Your task to perform on an android device: Go to accessibility settings Image 0: 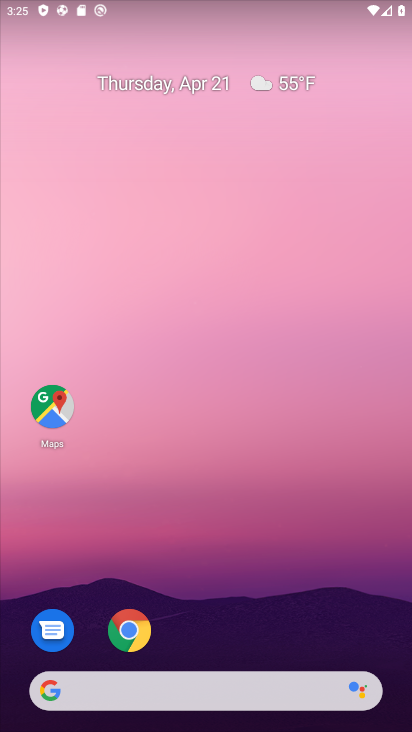
Step 0: drag from (372, 644) to (336, 1)
Your task to perform on an android device: Go to accessibility settings Image 1: 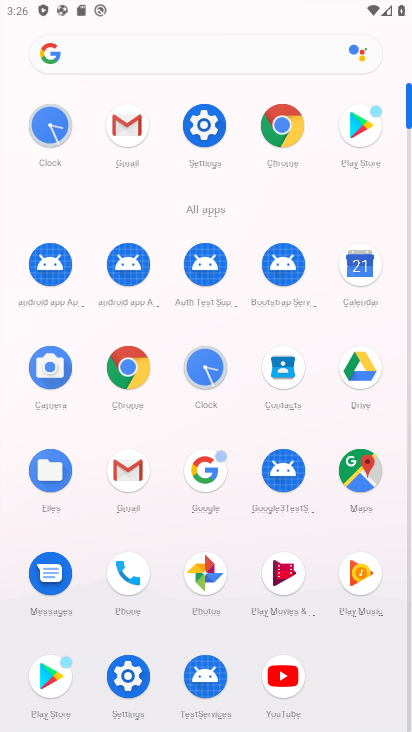
Step 1: click (202, 124)
Your task to perform on an android device: Go to accessibility settings Image 2: 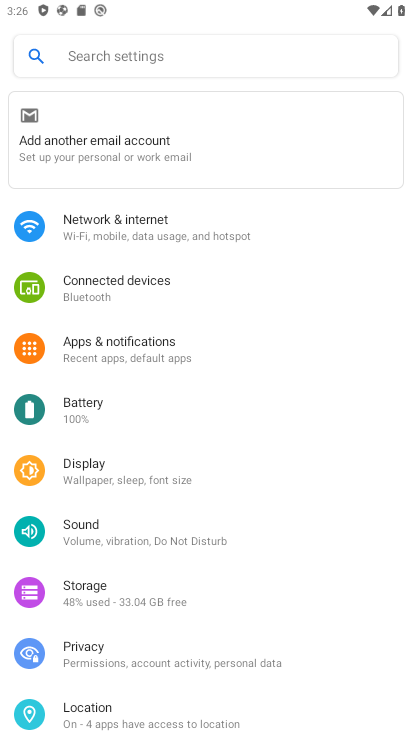
Step 2: drag from (356, 654) to (332, 275)
Your task to perform on an android device: Go to accessibility settings Image 3: 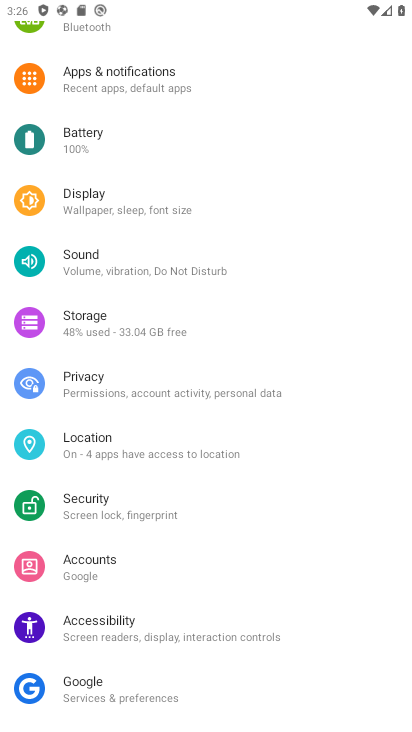
Step 3: click (60, 632)
Your task to perform on an android device: Go to accessibility settings Image 4: 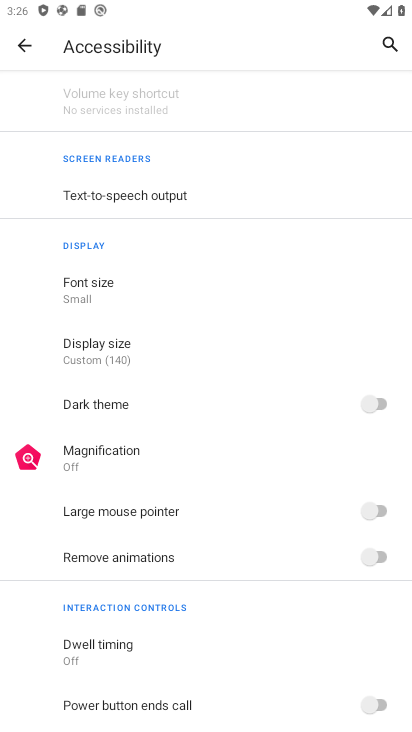
Step 4: task complete